Your task to perform on an android device: Open maps Image 0: 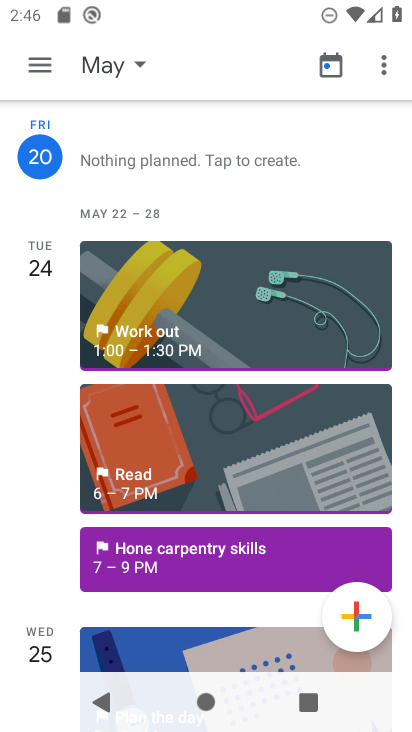
Step 0: press back button
Your task to perform on an android device: Open maps Image 1: 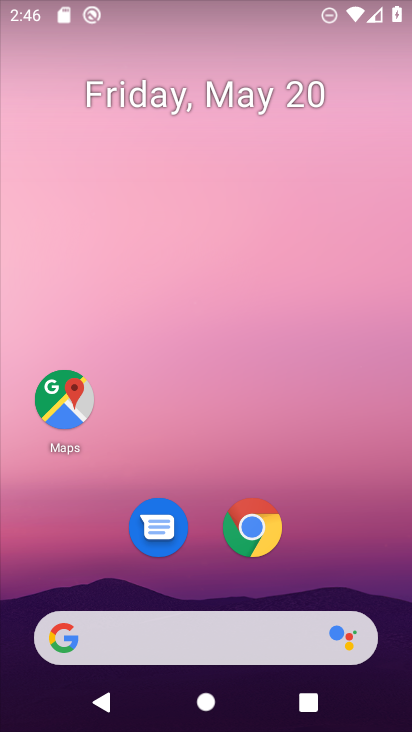
Step 1: click (66, 391)
Your task to perform on an android device: Open maps Image 2: 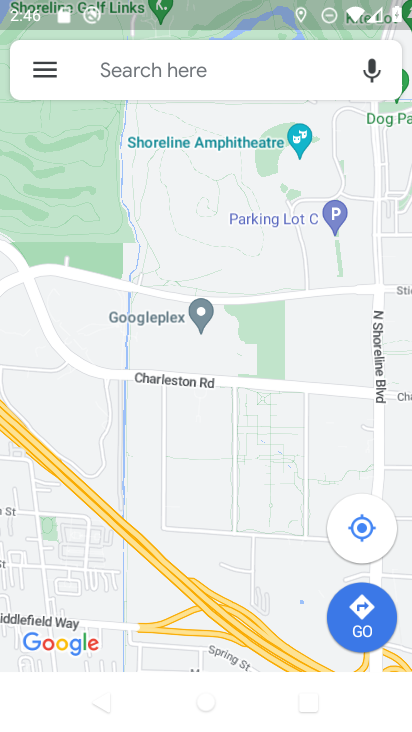
Step 2: task complete